Your task to perform on an android device: turn off improve location accuracy Image 0: 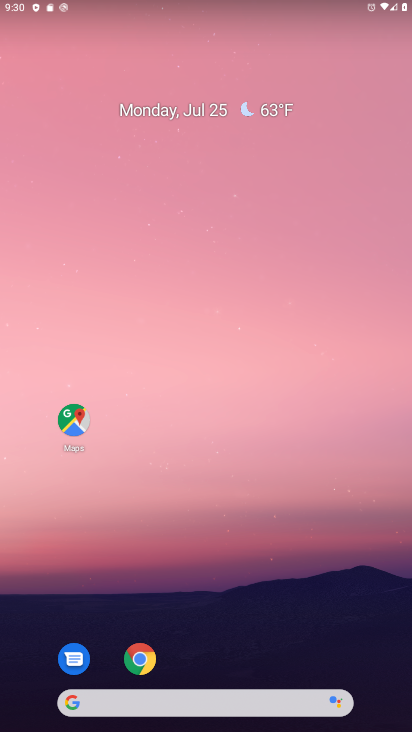
Step 0: drag from (208, 730) to (206, 76)
Your task to perform on an android device: turn off improve location accuracy Image 1: 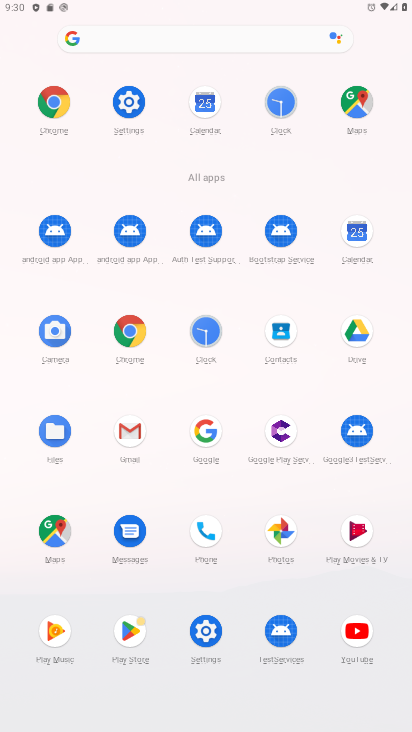
Step 1: click (123, 98)
Your task to perform on an android device: turn off improve location accuracy Image 2: 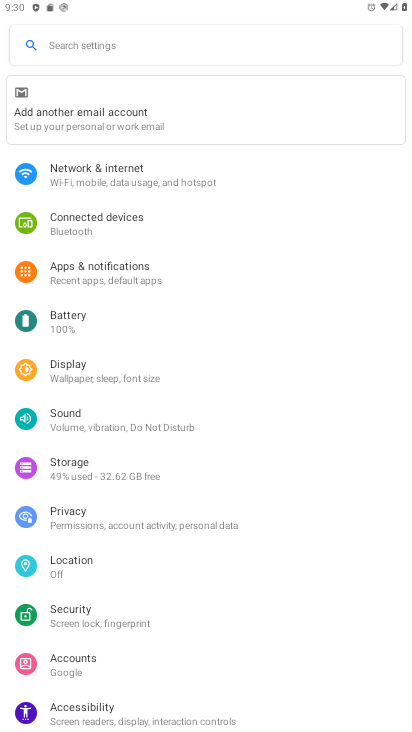
Step 2: click (72, 560)
Your task to perform on an android device: turn off improve location accuracy Image 3: 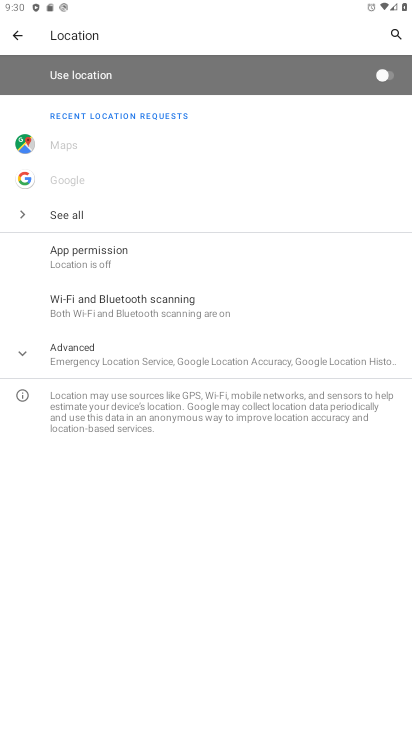
Step 3: click (96, 360)
Your task to perform on an android device: turn off improve location accuracy Image 4: 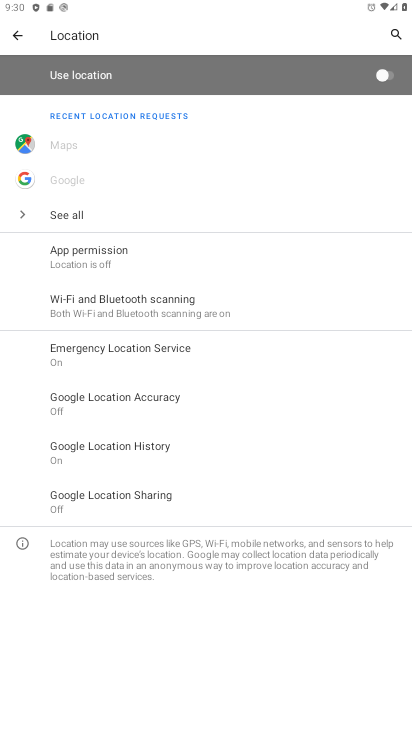
Step 4: click (128, 398)
Your task to perform on an android device: turn off improve location accuracy Image 5: 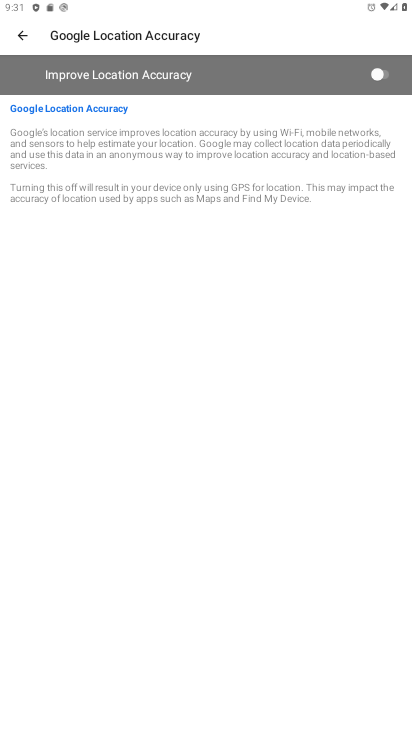
Step 5: task complete